Your task to perform on an android device: Open maps Image 0: 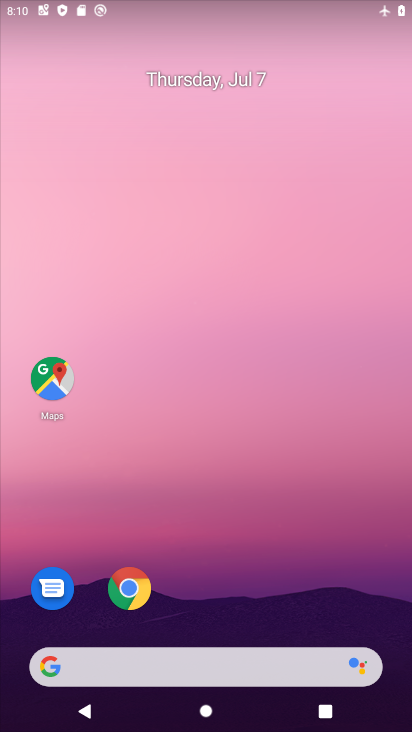
Step 0: click (54, 379)
Your task to perform on an android device: Open maps Image 1: 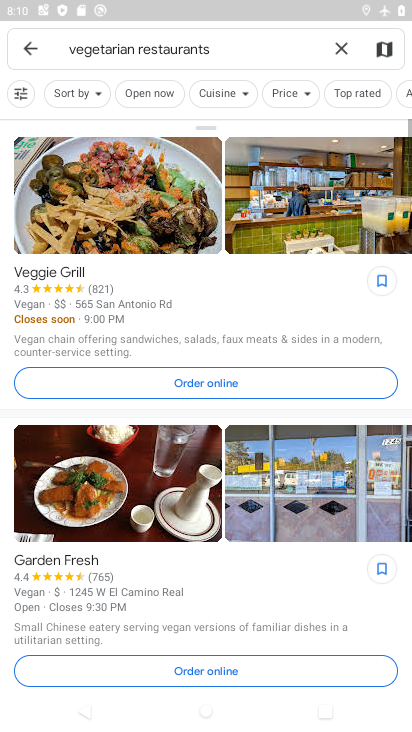
Step 1: task complete